Your task to perform on an android device: Go to internet settings Image 0: 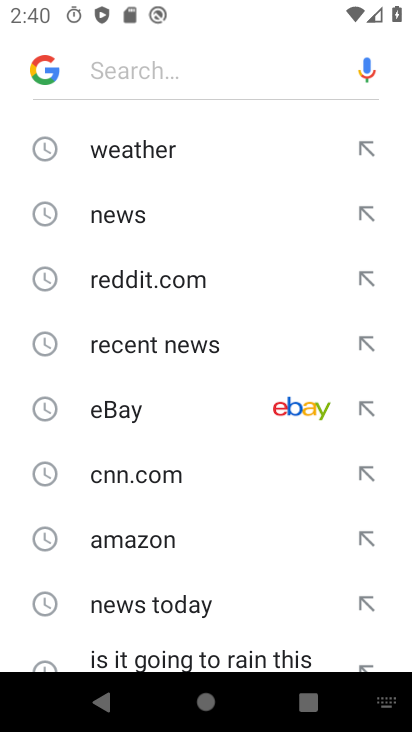
Step 0: press home button
Your task to perform on an android device: Go to internet settings Image 1: 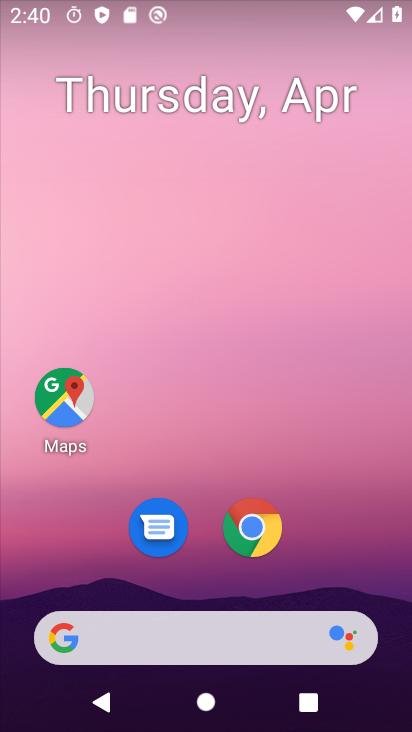
Step 1: drag from (321, 536) to (306, 139)
Your task to perform on an android device: Go to internet settings Image 2: 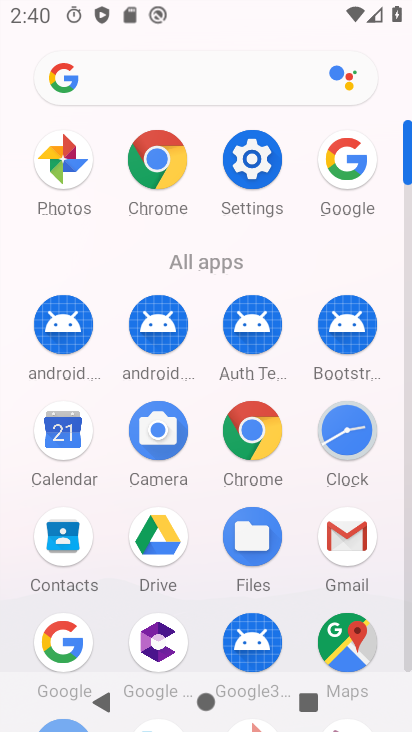
Step 2: click (258, 168)
Your task to perform on an android device: Go to internet settings Image 3: 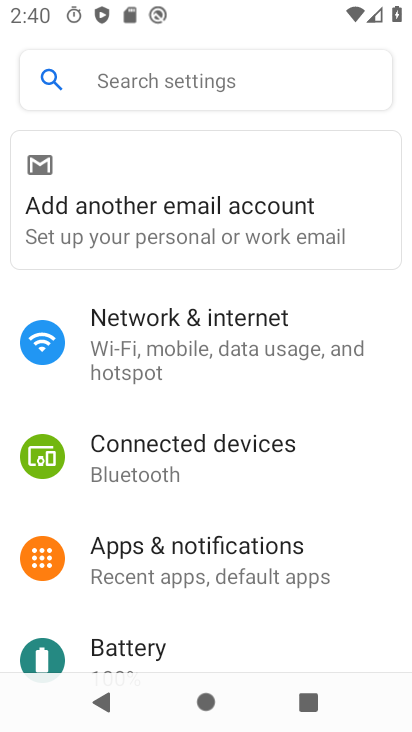
Step 3: click (211, 338)
Your task to perform on an android device: Go to internet settings Image 4: 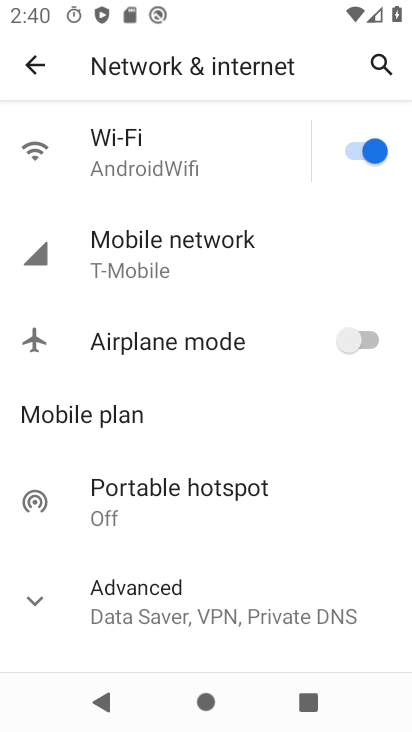
Step 4: click (183, 129)
Your task to perform on an android device: Go to internet settings Image 5: 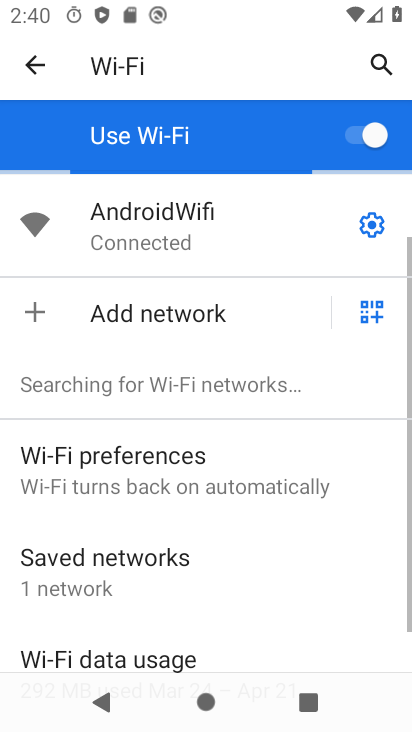
Step 5: click (33, 64)
Your task to perform on an android device: Go to internet settings Image 6: 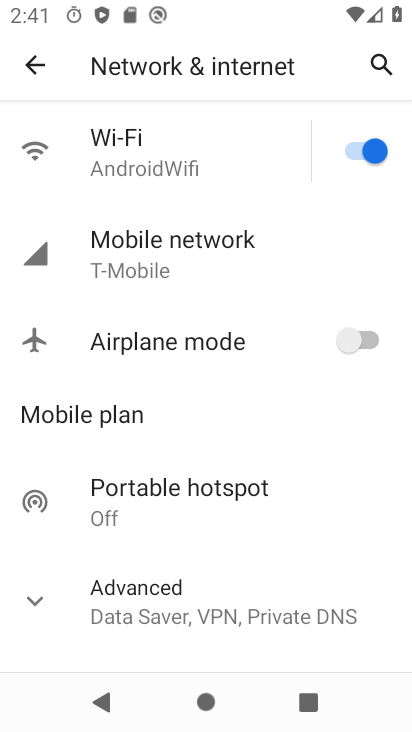
Step 6: task complete